Your task to perform on an android device: clear history in the chrome app Image 0: 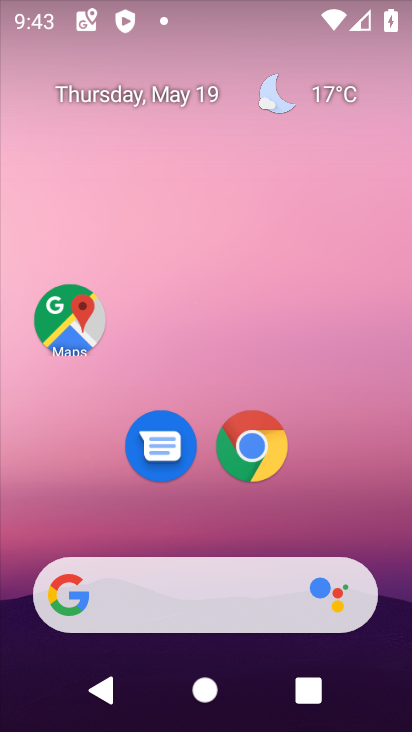
Step 0: click (248, 446)
Your task to perform on an android device: clear history in the chrome app Image 1: 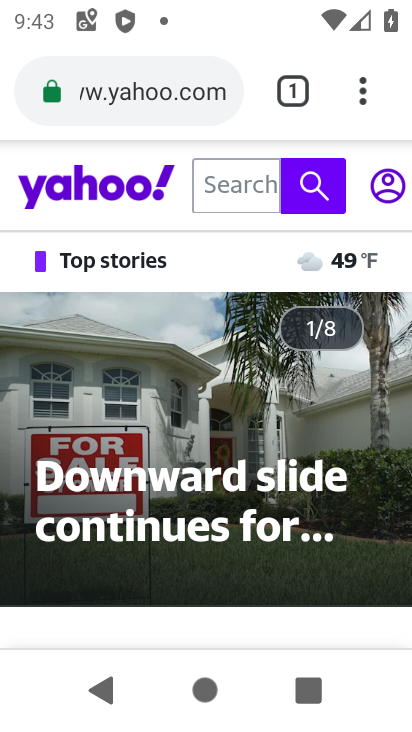
Step 1: click (368, 101)
Your task to perform on an android device: clear history in the chrome app Image 2: 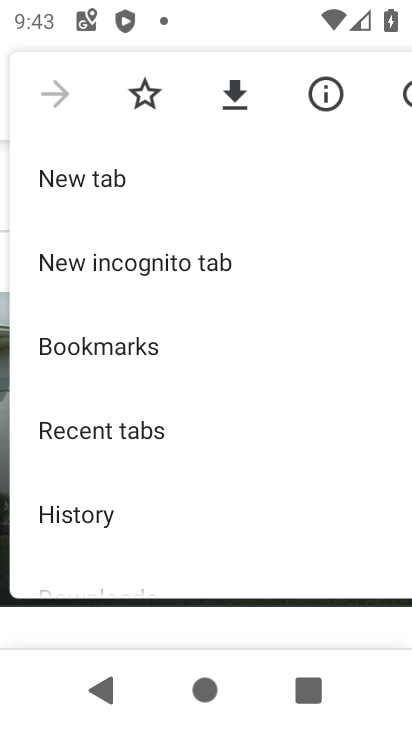
Step 2: click (85, 523)
Your task to perform on an android device: clear history in the chrome app Image 3: 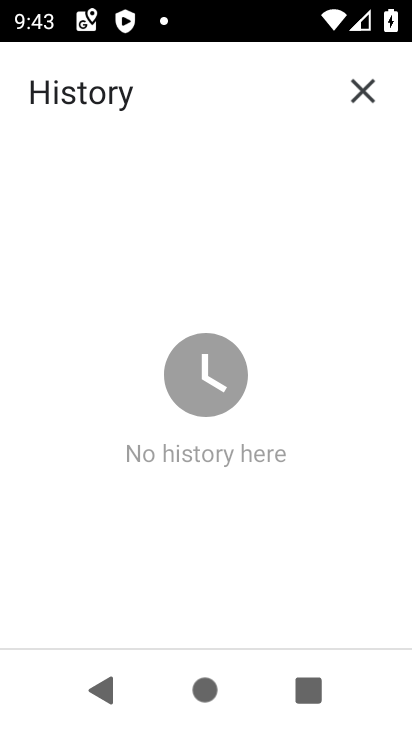
Step 3: task complete